Your task to perform on an android device: Clear all items from cart on newegg.com. Add "usb-c to usb-b" to the cart on newegg.com, then select checkout. Image 0: 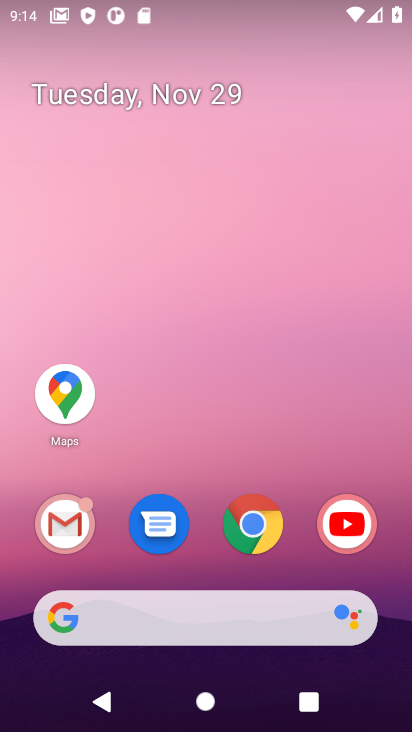
Step 0: click (238, 534)
Your task to perform on an android device: Clear all items from cart on newegg.com. Add "usb-c to usb-b" to the cart on newegg.com, then select checkout. Image 1: 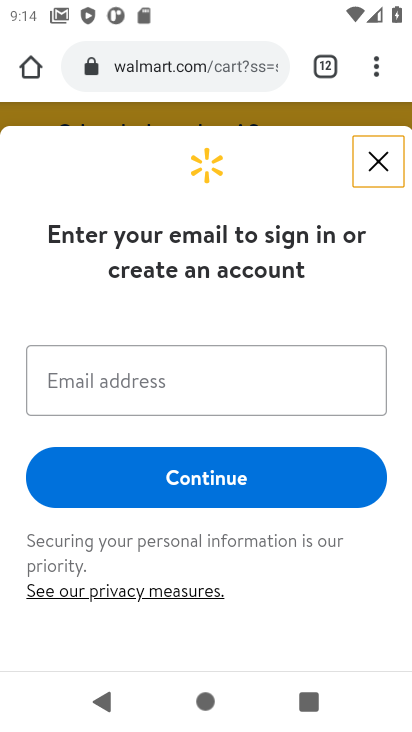
Step 1: click (136, 64)
Your task to perform on an android device: Clear all items from cart on newegg.com. Add "usb-c to usb-b" to the cart on newegg.com, then select checkout. Image 2: 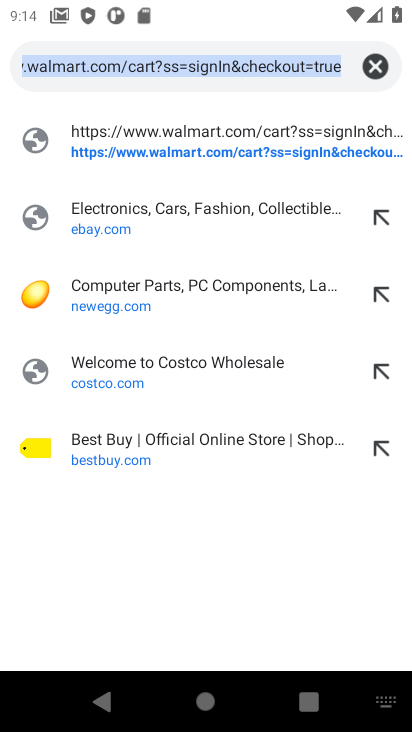
Step 2: click (91, 294)
Your task to perform on an android device: Clear all items from cart on newegg.com. Add "usb-c to usb-b" to the cart on newegg.com, then select checkout. Image 3: 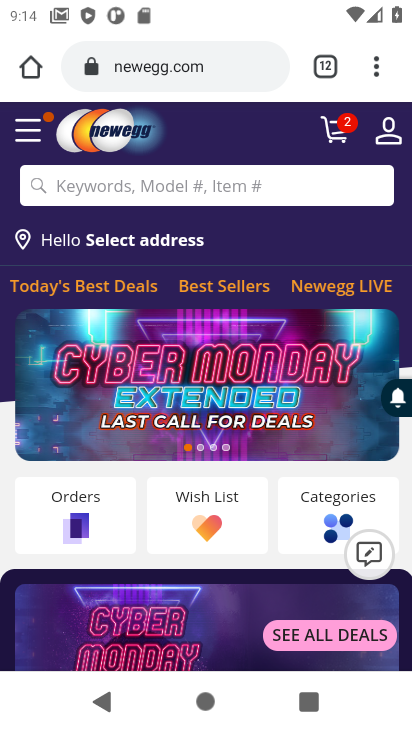
Step 3: click (338, 135)
Your task to perform on an android device: Clear all items from cart on newegg.com. Add "usb-c to usb-b" to the cart on newegg.com, then select checkout. Image 4: 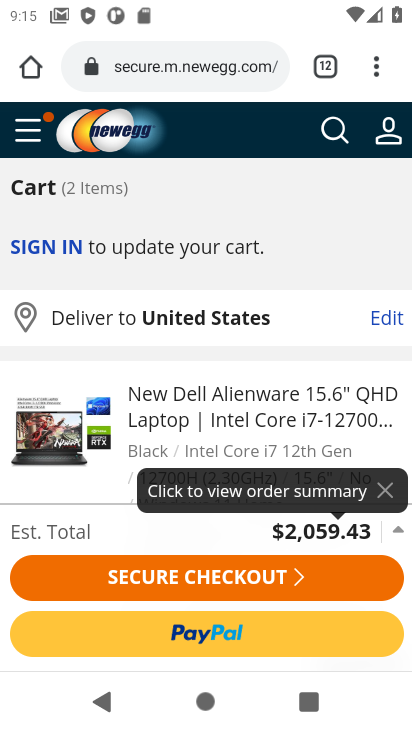
Step 4: drag from (220, 385) to (227, 161)
Your task to perform on an android device: Clear all items from cart on newegg.com. Add "usb-c to usb-b" to the cart on newegg.com, then select checkout. Image 5: 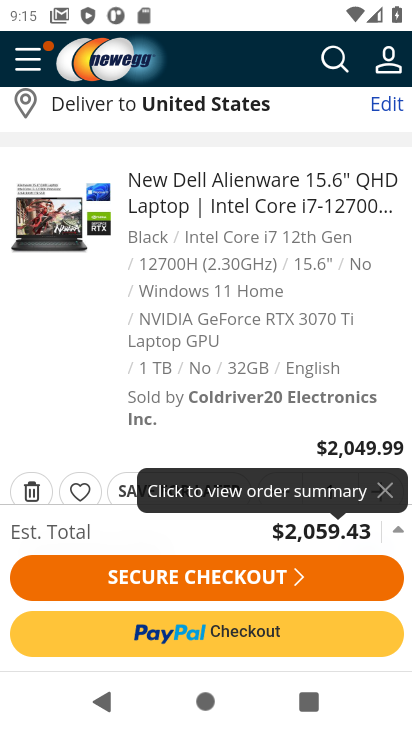
Step 5: click (29, 494)
Your task to perform on an android device: Clear all items from cart on newegg.com. Add "usb-c to usb-b" to the cart on newegg.com, then select checkout. Image 6: 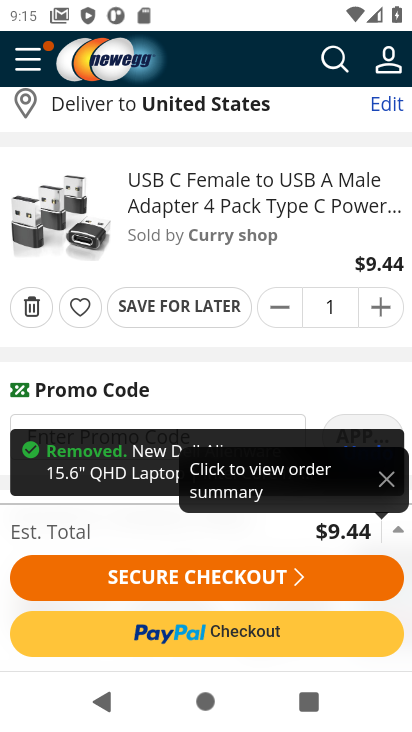
Step 6: click (32, 309)
Your task to perform on an android device: Clear all items from cart on newegg.com. Add "usb-c to usb-b" to the cart on newegg.com, then select checkout. Image 7: 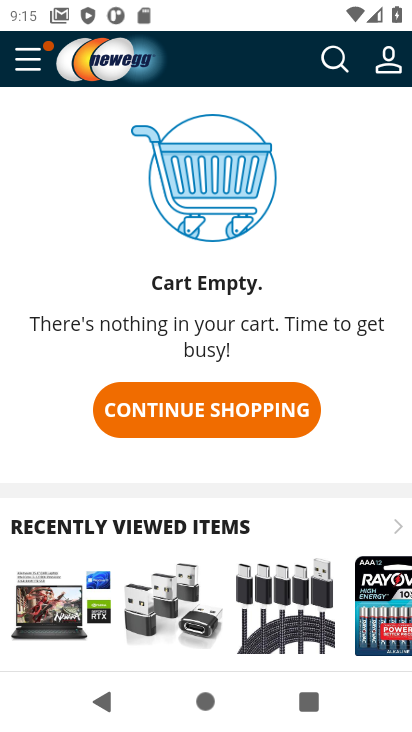
Step 7: click (340, 60)
Your task to perform on an android device: Clear all items from cart on newegg.com. Add "usb-c to usb-b" to the cart on newegg.com, then select checkout. Image 8: 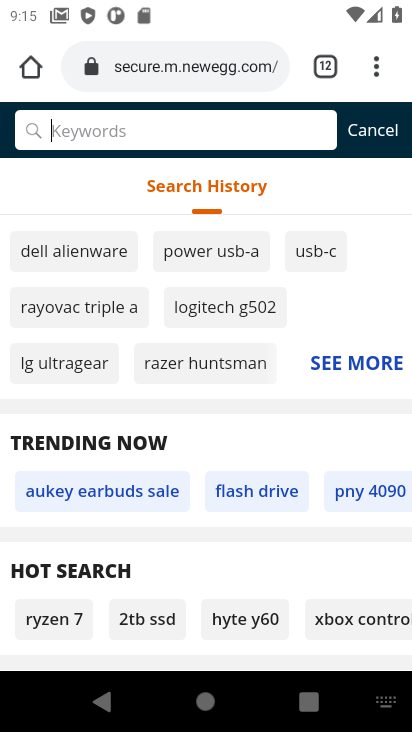
Step 8: type "usb-c to usb-b"
Your task to perform on an android device: Clear all items from cart on newegg.com. Add "usb-c to usb-b" to the cart on newegg.com, then select checkout. Image 9: 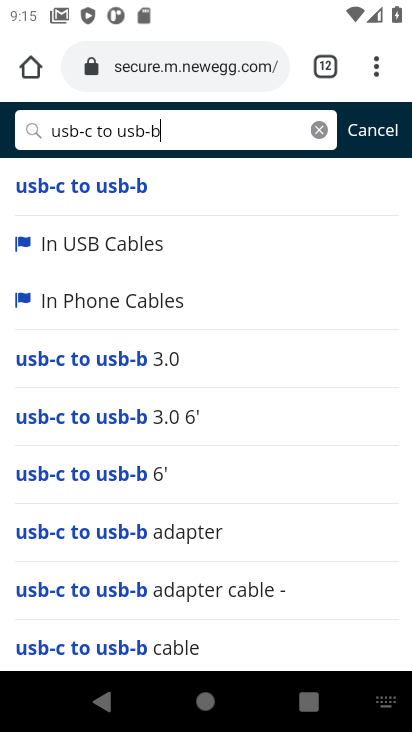
Step 9: click (113, 191)
Your task to perform on an android device: Clear all items from cart on newegg.com. Add "usb-c to usb-b" to the cart on newegg.com, then select checkout. Image 10: 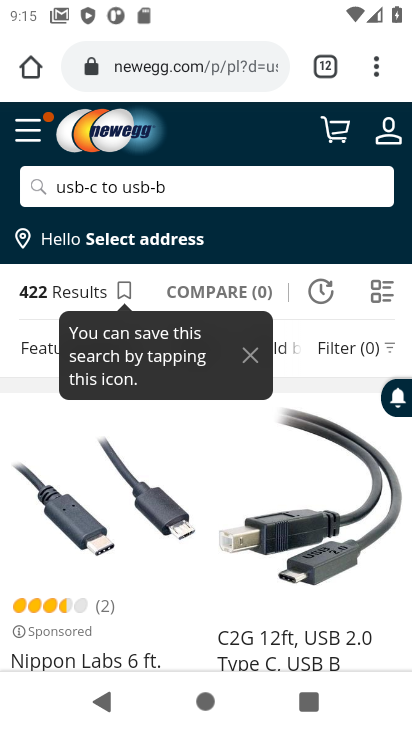
Step 10: drag from (175, 430) to (181, 185)
Your task to perform on an android device: Clear all items from cart on newegg.com. Add "usb-c to usb-b" to the cart on newegg.com, then select checkout. Image 11: 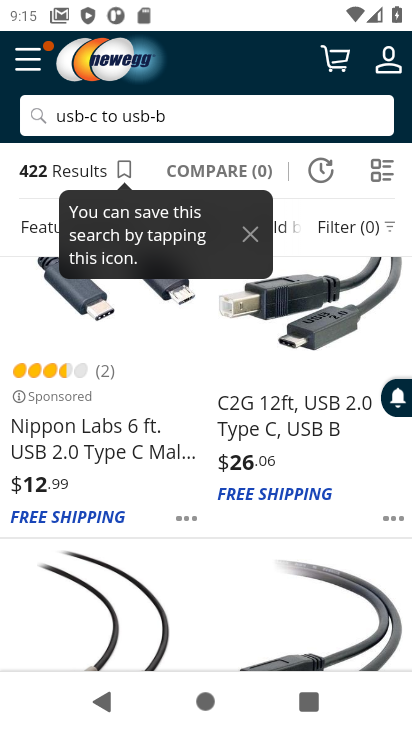
Step 11: click (296, 340)
Your task to perform on an android device: Clear all items from cart on newegg.com. Add "usb-c to usb-b" to the cart on newegg.com, then select checkout. Image 12: 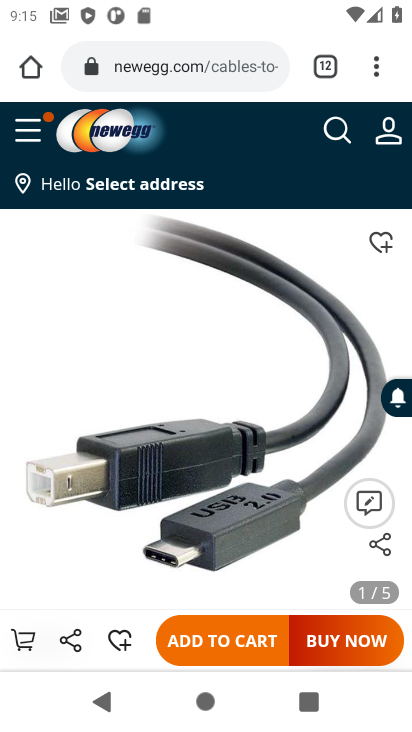
Step 12: click (215, 642)
Your task to perform on an android device: Clear all items from cart on newegg.com. Add "usb-c to usb-b" to the cart on newegg.com, then select checkout. Image 13: 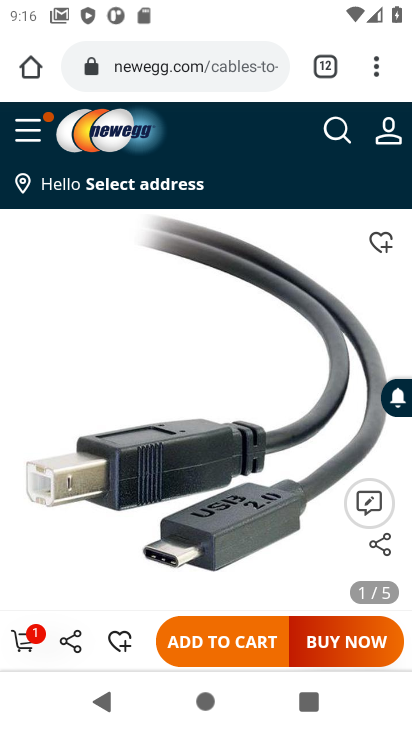
Step 13: click (22, 642)
Your task to perform on an android device: Clear all items from cart on newegg.com. Add "usb-c to usb-b" to the cart on newegg.com, then select checkout. Image 14: 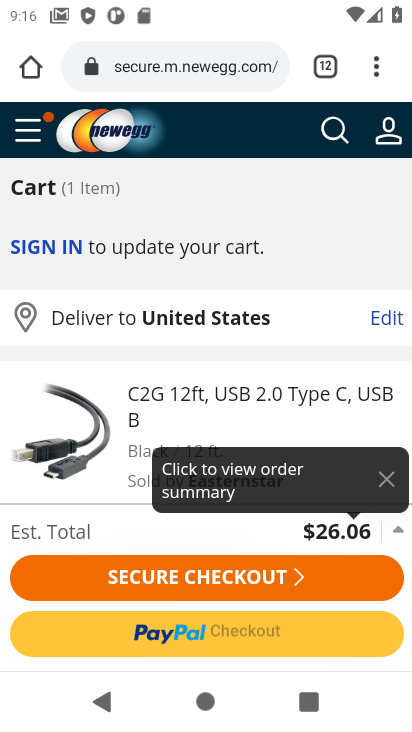
Step 14: click (193, 577)
Your task to perform on an android device: Clear all items from cart on newegg.com. Add "usb-c to usb-b" to the cart on newegg.com, then select checkout. Image 15: 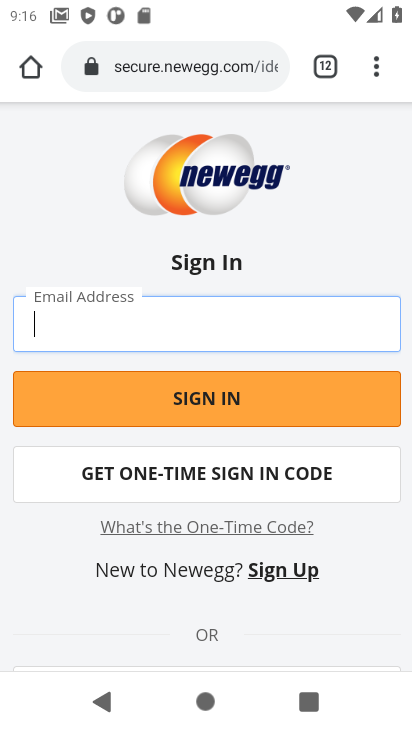
Step 15: task complete